Your task to perform on an android device: move an email to a new category in the gmail app Image 0: 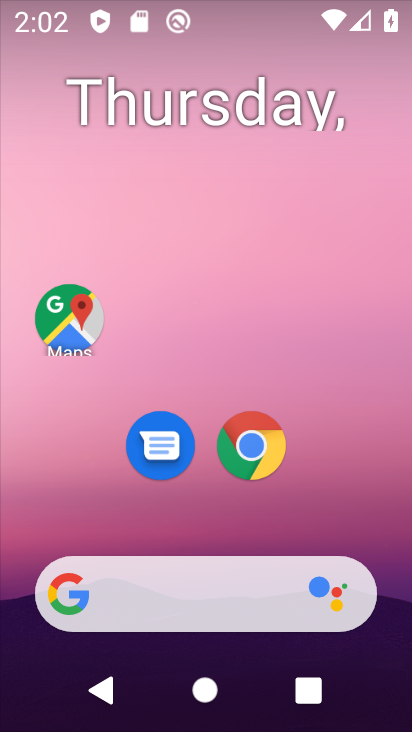
Step 0: press home button
Your task to perform on an android device: move an email to a new category in the gmail app Image 1: 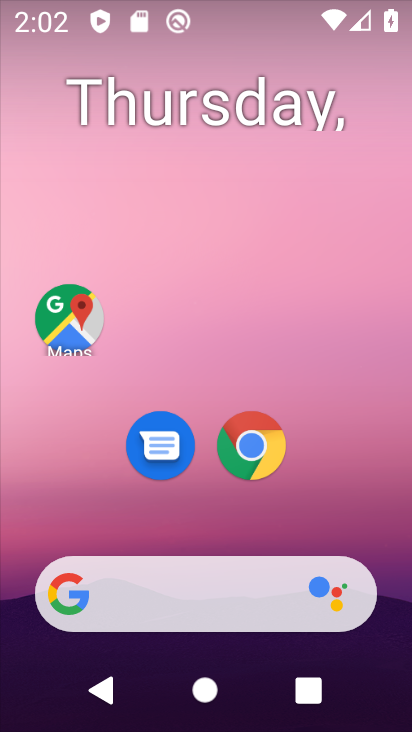
Step 1: drag from (51, 464) to (186, 184)
Your task to perform on an android device: move an email to a new category in the gmail app Image 2: 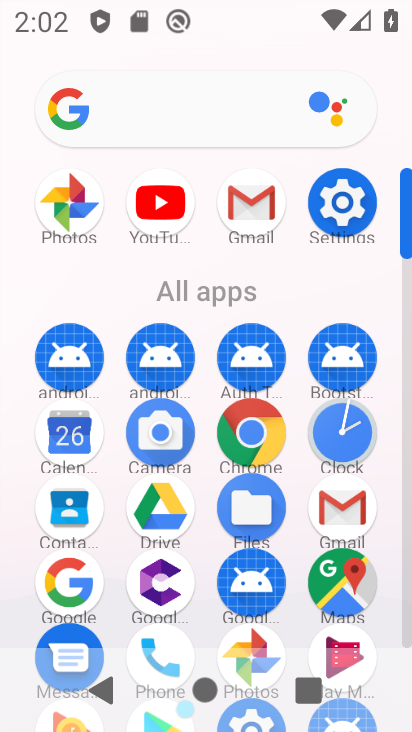
Step 2: click (268, 209)
Your task to perform on an android device: move an email to a new category in the gmail app Image 3: 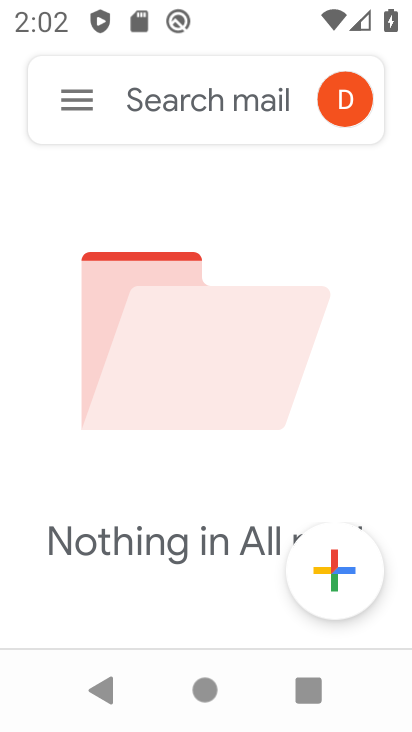
Step 3: click (68, 101)
Your task to perform on an android device: move an email to a new category in the gmail app Image 4: 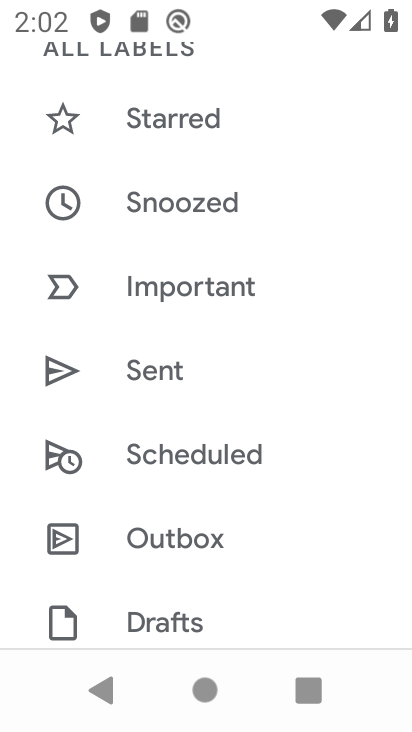
Step 4: drag from (209, 147) to (185, 512)
Your task to perform on an android device: move an email to a new category in the gmail app Image 5: 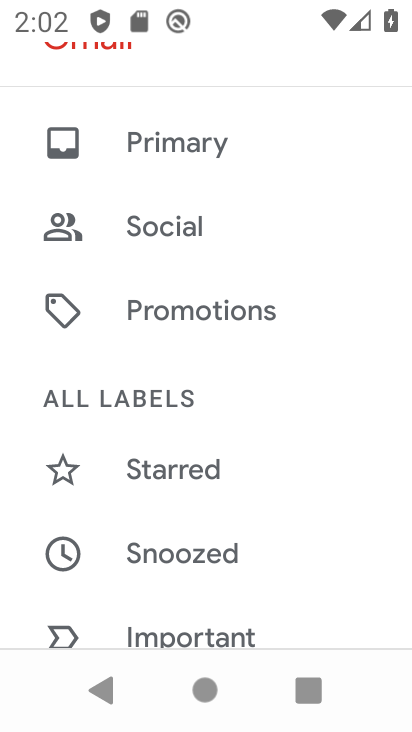
Step 5: drag from (160, 172) to (202, 492)
Your task to perform on an android device: move an email to a new category in the gmail app Image 6: 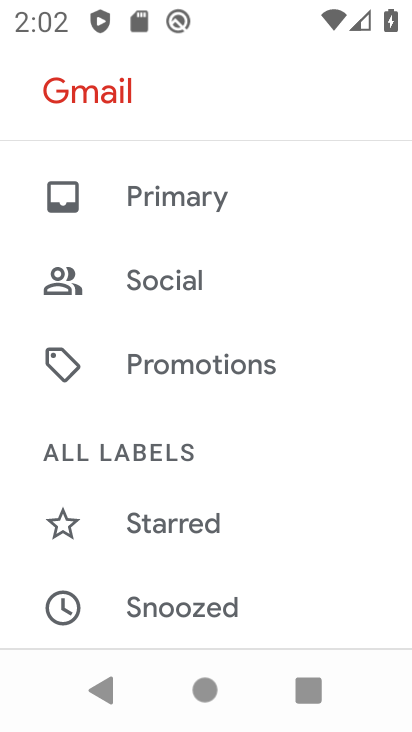
Step 6: drag from (151, 578) to (265, 147)
Your task to perform on an android device: move an email to a new category in the gmail app Image 7: 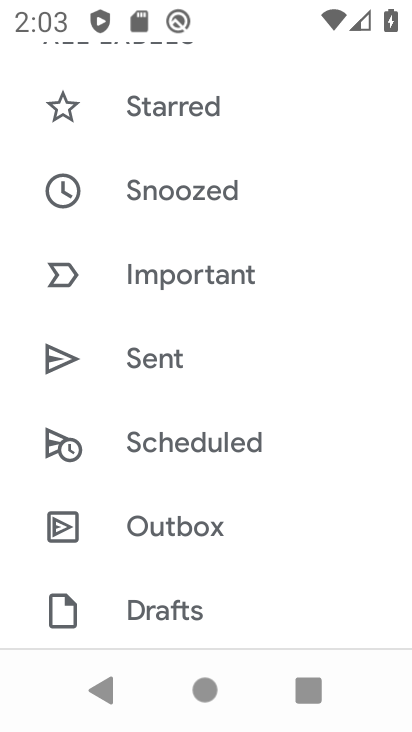
Step 7: drag from (152, 551) to (262, 187)
Your task to perform on an android device: move an email to a new category in the gmail app Image 8: 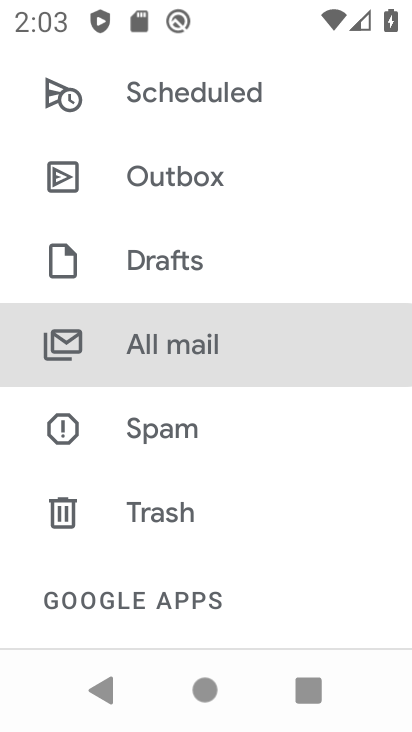
Step 8: click (227, 348)
Your task to perform on an android device: move an email to a new category in the gmail app Image 9: 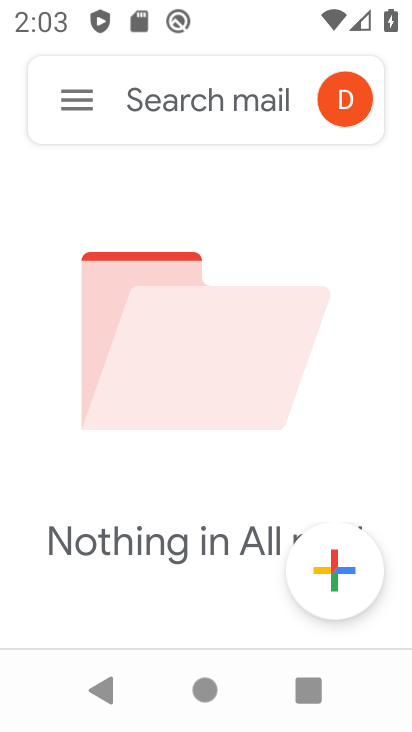
Step 9: task complete